Your task to perform on an android device: Open Google Maps Image 0: 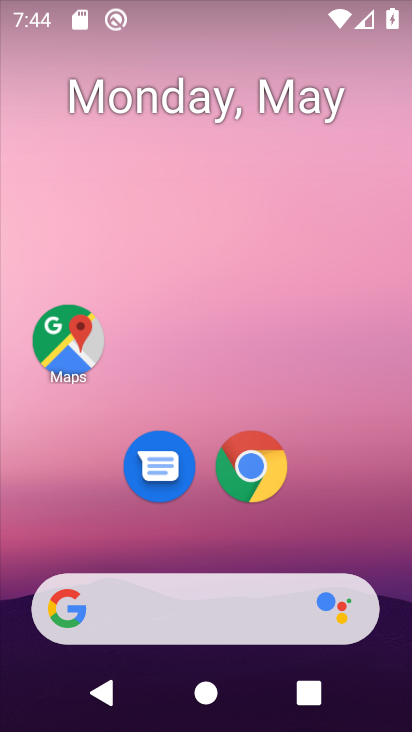
Step 0: drag from (330, 677) to (172, 2)
Your task to perform on an android device: Open Google Maps Image 1: 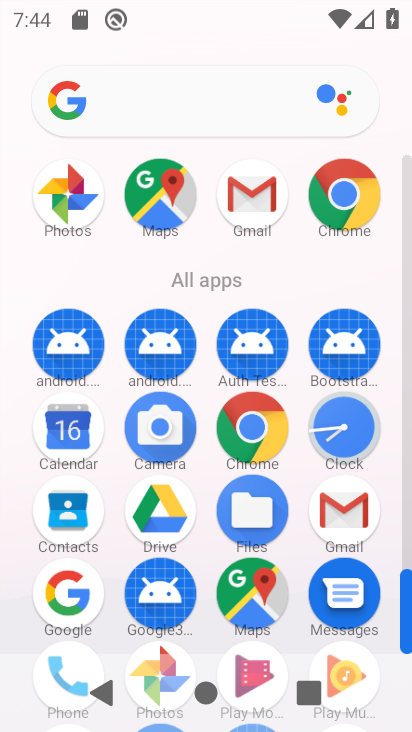
Step 1: click (161, 208)
Your task to perform on an android device: Open Google Maps Image 2: 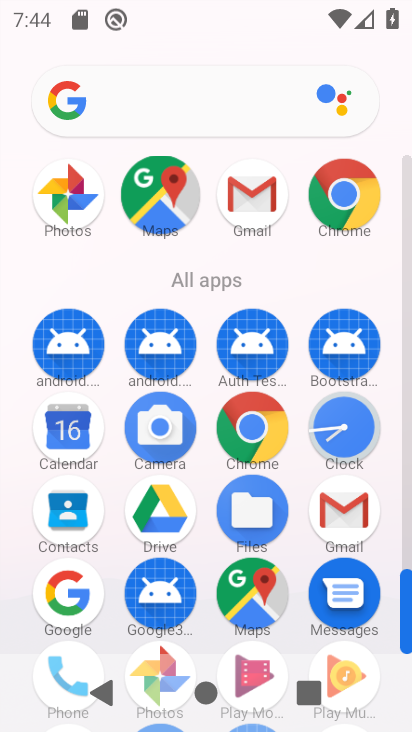
Step 2: click (160, 207)
Your task to perform on an android device: Open Google Maps Image 3: 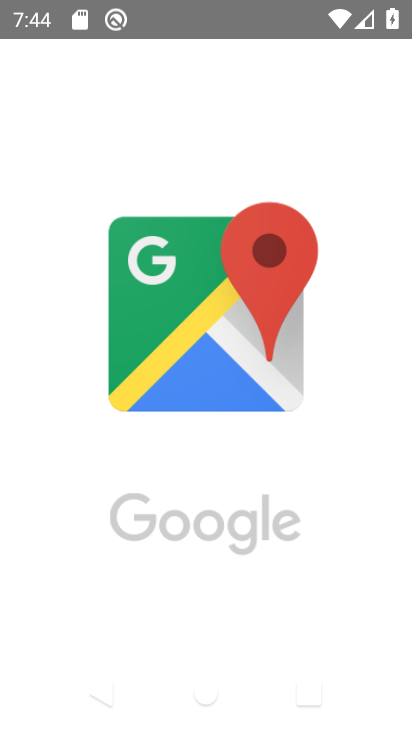
Step 3: click (160, 207)
Your task to perform on an android device: Open Google Maps Image 4: 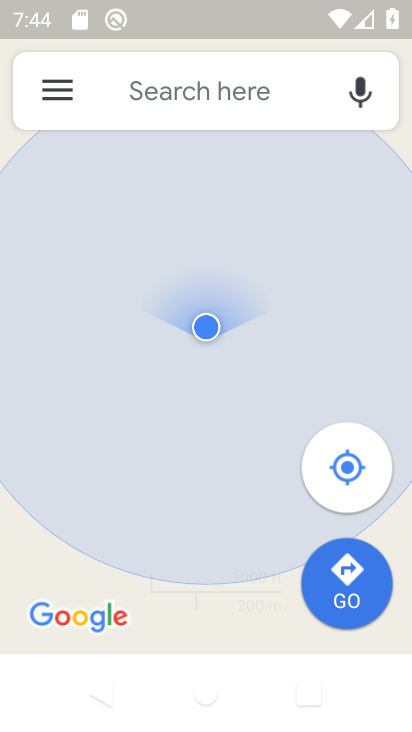
Step 4: task complete